Your task to perform on an android device: check the backup settings in the google photos Image 0: 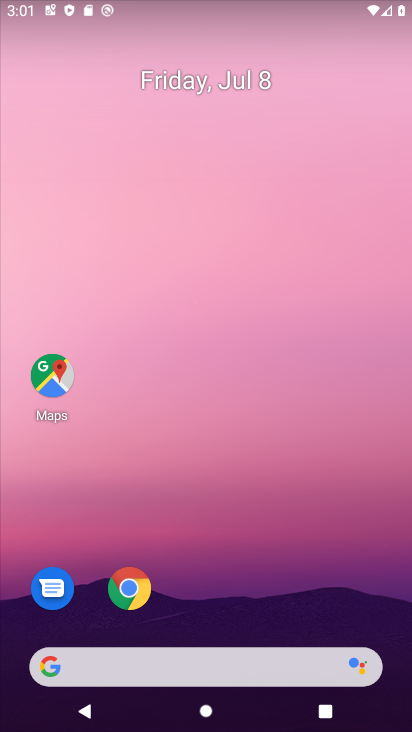
Step 0: drag from (167, 672) to (260, 146)
Your task to perform on an android device: check the backup settings in the google photos Image 1: 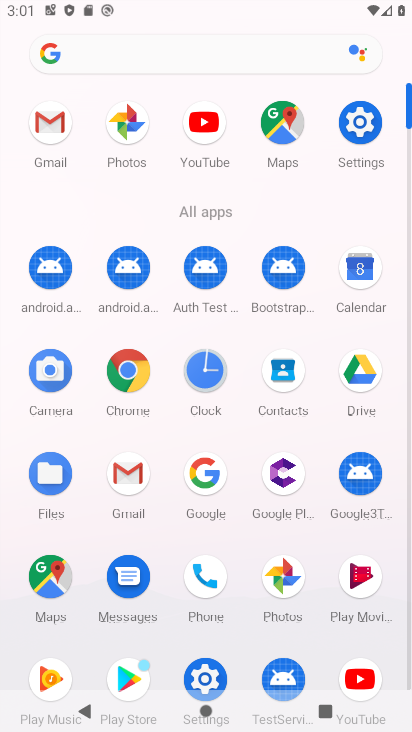
Step 1: click (290, 577)
Your task to perform on an android device: check the backup settings in the google photos Image 2: 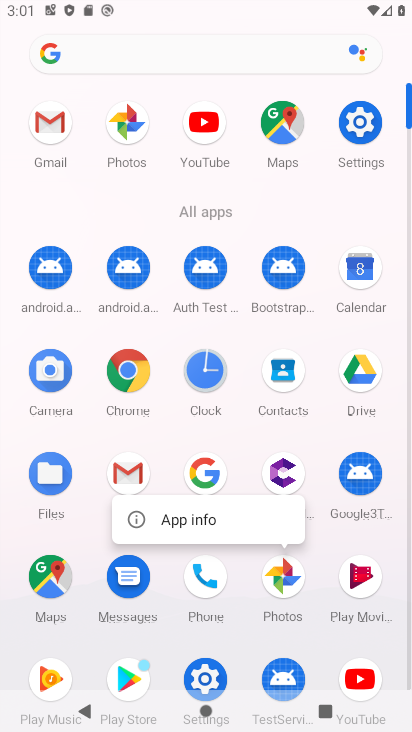
Step 2: click (286, 588)
Your task to perform on an android device: check the backup settings in the google photos Image 3: 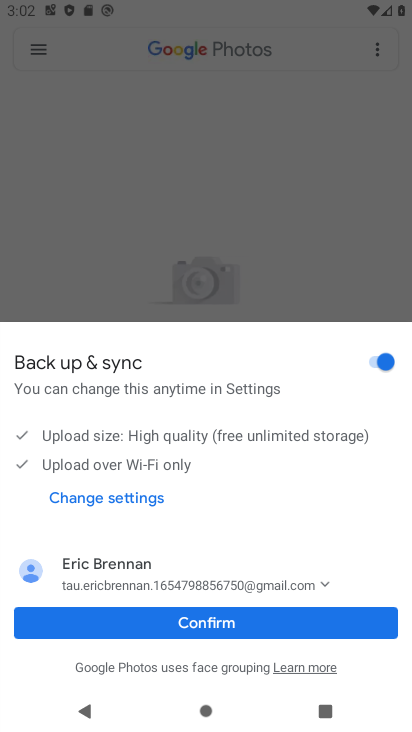
Step 3: click (218, 626)
Your task to perform on an android device: check the backup settings in the google photos Image 4: 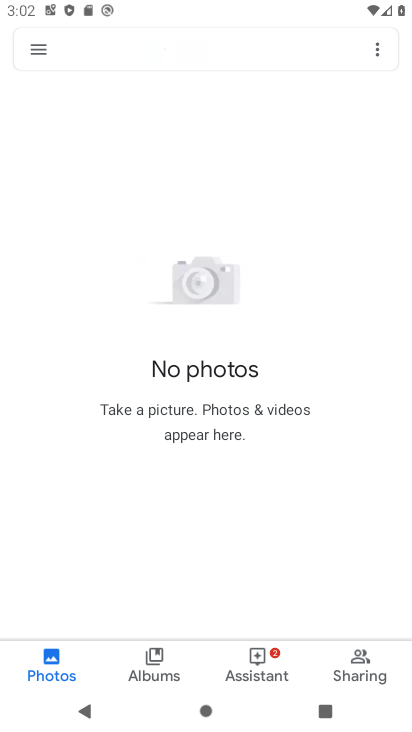
Step 4: click (36, 45)
Your task to perform on an android device: check the backup settings in the google photos Image 5: 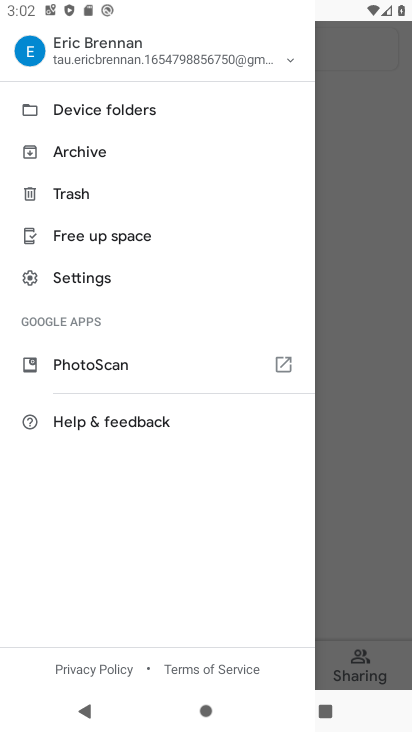
Step 5: click (85, 277)
Your task to perform on an android device: check the backup settings in the google photos Image 6: 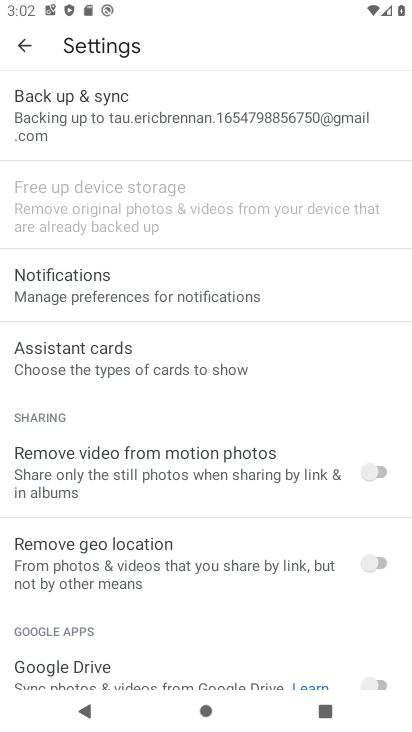
Step 6: click (211, 131)
Your task to perform on an android device: check the backup settings in the google photos Image 7: 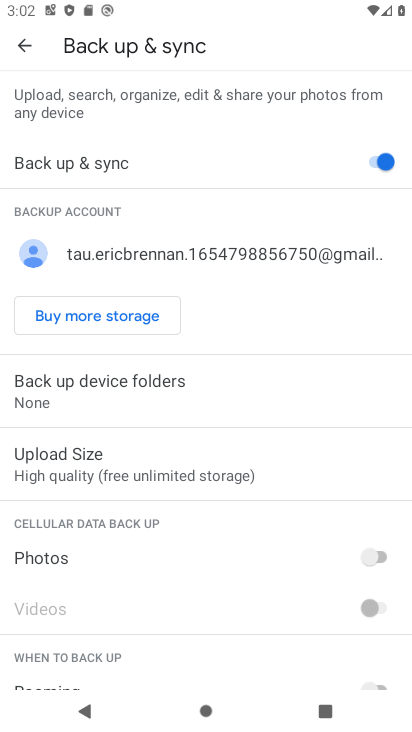
Step 7: task complete